Your task to perform on an android device: Go to wifi settings Image 0: 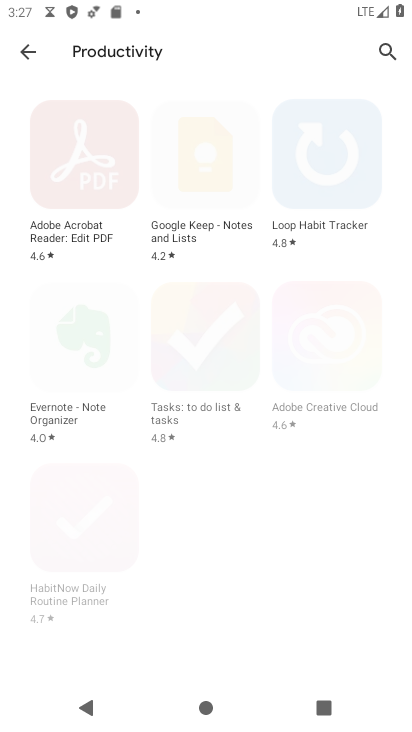
Step 0: press back button
Your task to perform on an android device: Go to wifi settings Image 1: 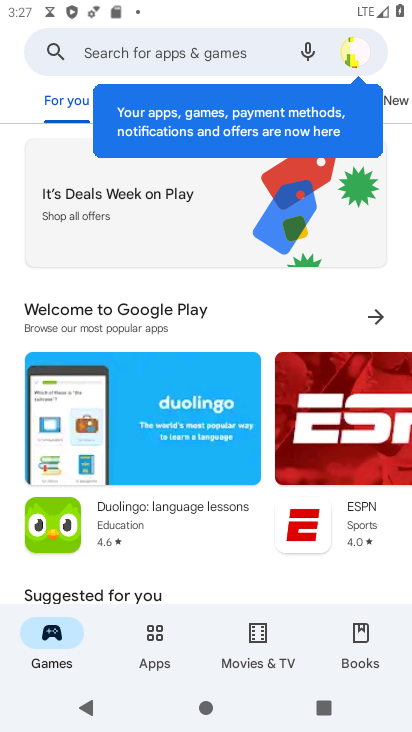
Step 1: press back button
Your task to perform on an android device: Go to wifi settings Image 2: 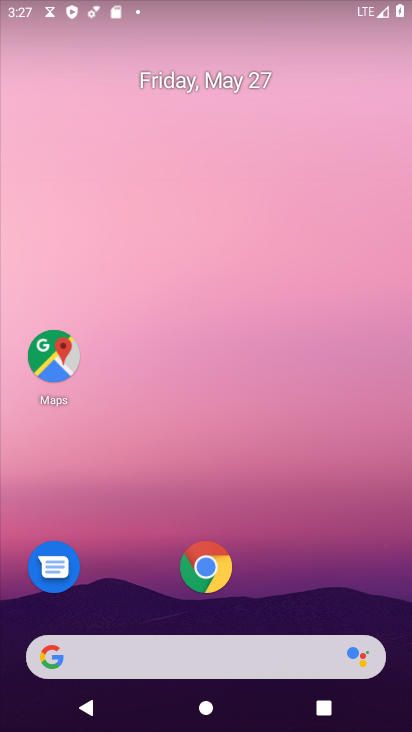
Step 2: drag from (117, 12) to (140, 480)
Your task to perform on an android device: Go to wifi settings Image 3: 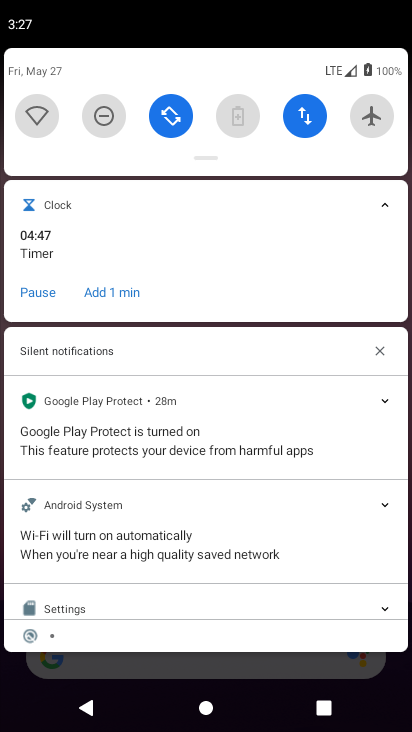
Step 3: click (43, 110)
Your task to perform on an android device: Go to wifi settings Image 4: 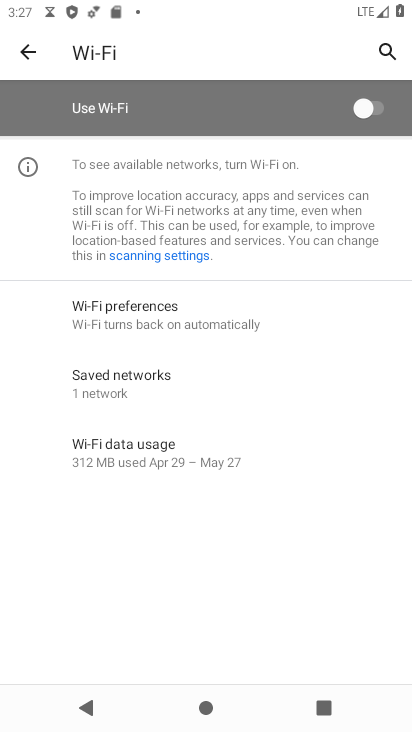
Step 4: task complete